Your task to perform on an android device: Empty the shopping cart on costco.com. Search for usb-c to usb-a on costco.com, select the first entry, add it to the cart, then select checkout. Image 0: 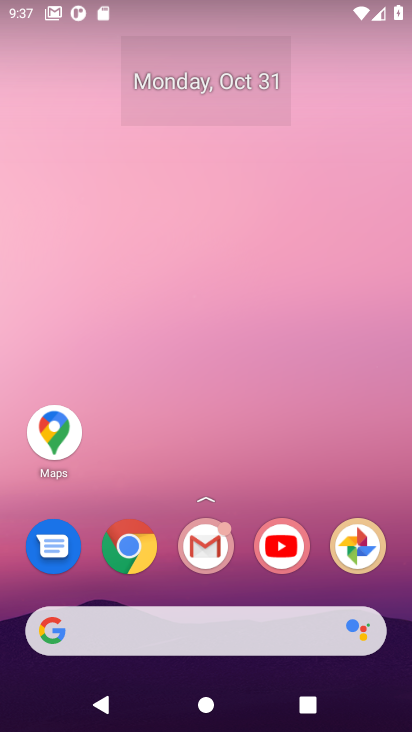
Step 0: drag from (238, 605) to (134, 155)
Your task to perform on an android device: Empty the shopping cart on costco.com. Search for usb-c to usb-a on costco.com, select the first entry, add it to the cart, then select checkout. Image 1: 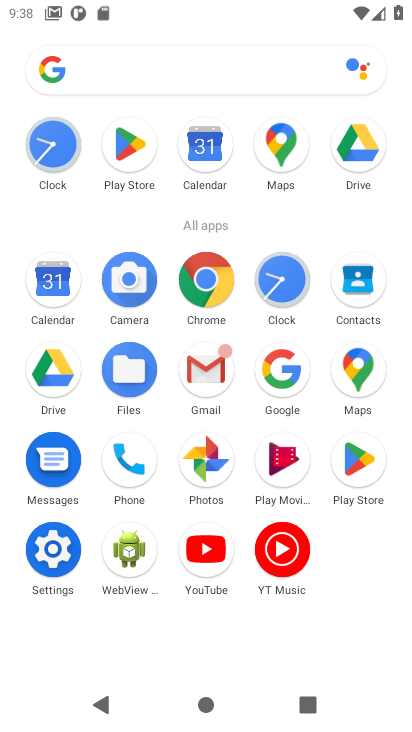
Step 1: click (213, 285)
Your task to perform on an android device: Empty the shopping cart on costco.com. Search for usb-c to usb-a on costco.com, select the first entry, add it to the cart, then select checkout. Image 2: 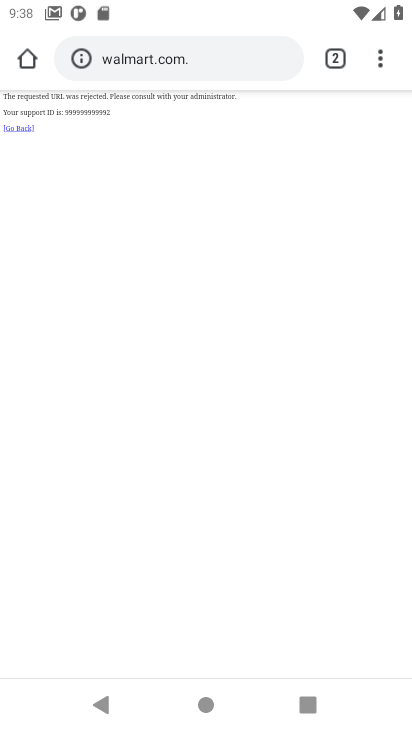
Step 2: click (201, 58)
Your task to perform on an android device: Empty the shopping cart on costco.com. Search for usb-c to usb-a on costco.com, select the first entry, add it to the cart, then select checkout. Image 3: 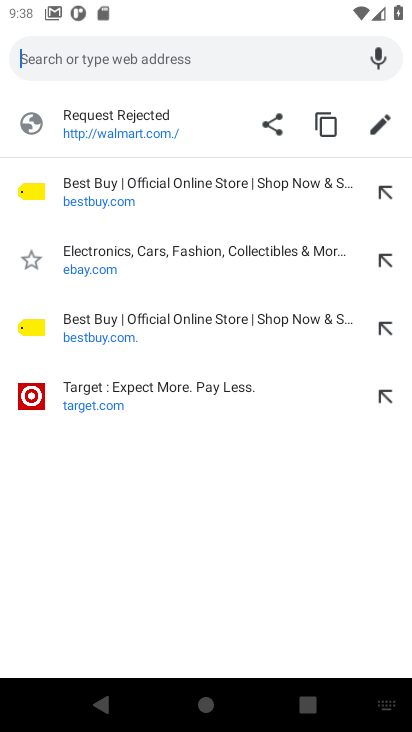
Step 3: type "costco.com."
Your task to perform on an android device: Empty the shopping cart on costco.com. Search for usb-c to usb-a on costco.com, select the first entry, add it to the cart, then select checkout. Image 4: 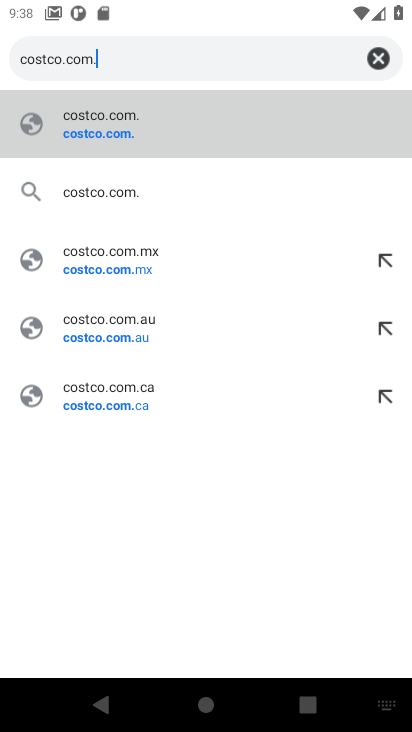
Step 4: press enter
Your task to perform on an android device: Empty the shopping cart on costco.com. Search for usb-c to usb-a on costco.com, select the first entry, add it to the cart, then select checkout. Image 5: 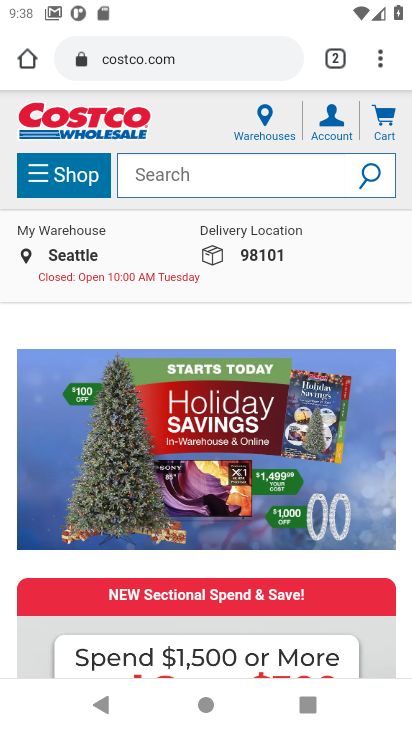
Step 5: click (178, 165)
Your task to perform on an android device: Empty the shopping cart on costco.com. Search for usb-c to usb-a on costco.com, select the first entry, add it to the cart, then select checkout. Image 6: 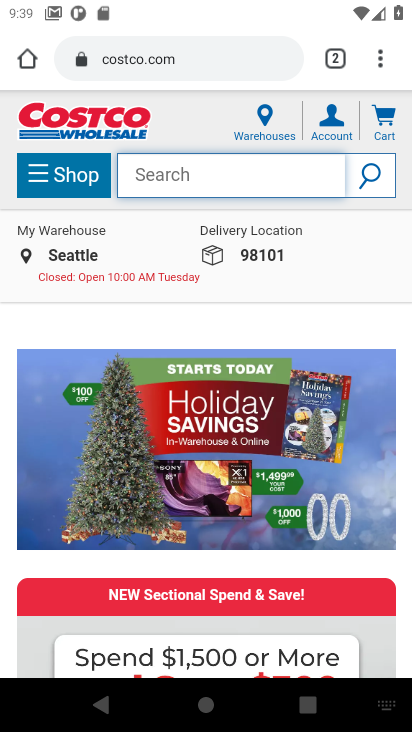
Step 6: type "usb-c to usb-a"
Your task to perform on an android device: Empty the shopping cart on costco.com. Search for usb-c to usb-a on costco.com, select the first entry, add it to the cart, then select checkout. Image 7: 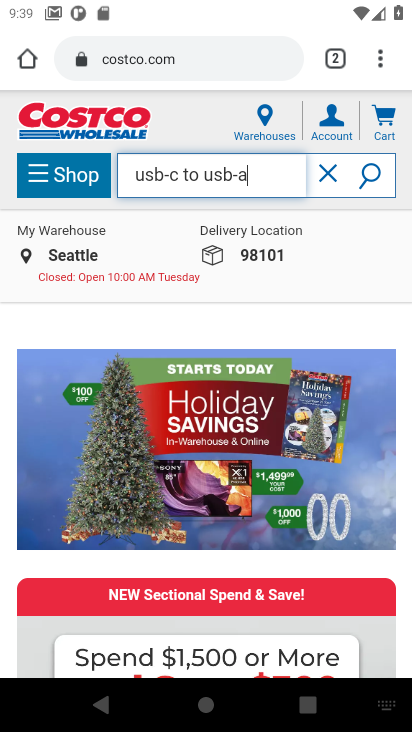
Step 7: press enter
Your task to perform on an android device: Empty the shopping cart on costco.com. Search for usb-c to usb-a on costco.com, select the first entry, add it to the cart, then select checkout. Image 8: 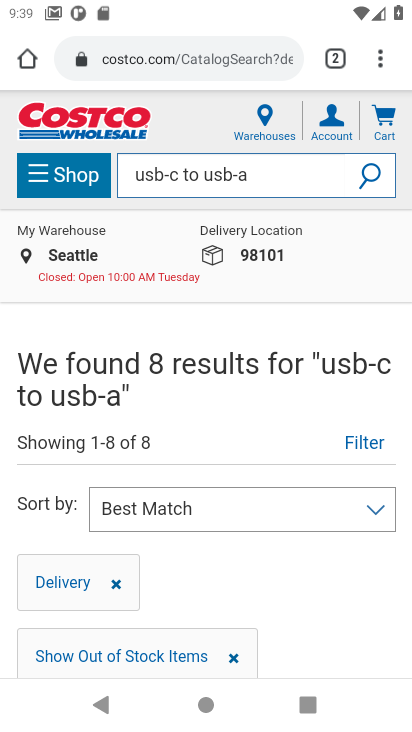
Step 8: drag from (236, 585) to (247, 275)
Your task to perform on an android device: Empty the shopping cart on costco.com. Search for usb-c to usb-a on costco.com, select the first entry, add it to the cart, then select checkout. Image 9: 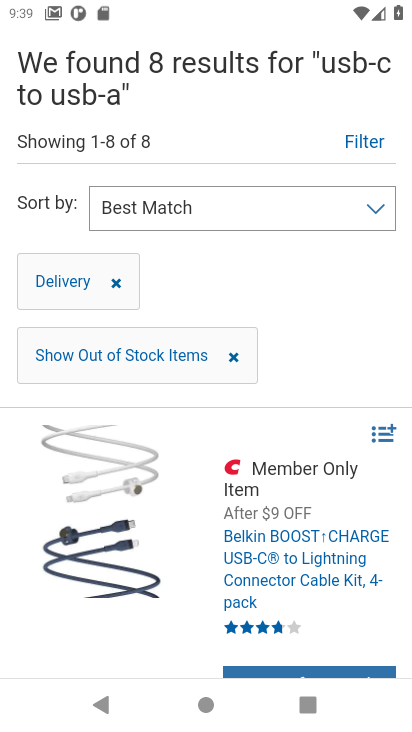
Step 9: drag from (235, 562) to (266, 249)
Your task to perform on an android device: Empty the shopping cart on costco.com. Search for usb-c to usb-a on costco.com, select the first entry, add it to the cart, then select checkout. Image 10: 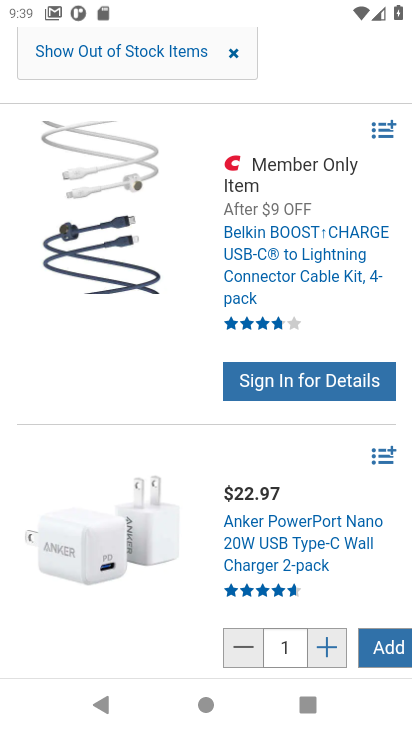
Step 10: click (388, 653)
Your task to perform on an android device: Empty the shopping cart on costco.com. Search for usb-c to usb-a on costco.com, select the first entry, add it to the cart, then select checkout. Image 11: 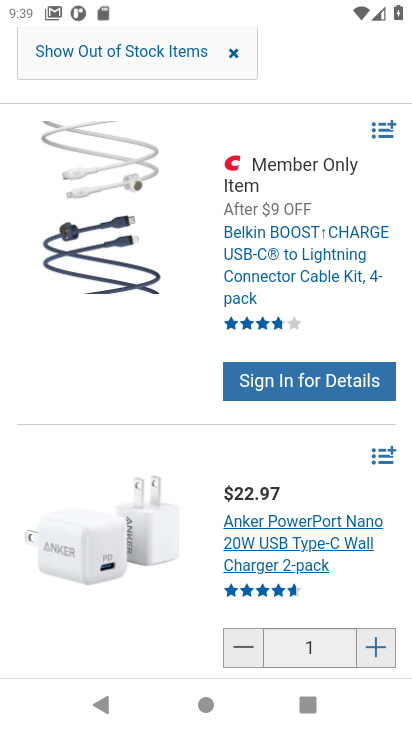
Step 11: drag from (164, 192) to (210, 561)
Your task to perform on an android device: Empty the shopping cart on costco.com. Search for usb-c to usb-a on costco.com, select the first entry, add it to the cart, then select checkout. Image 12: 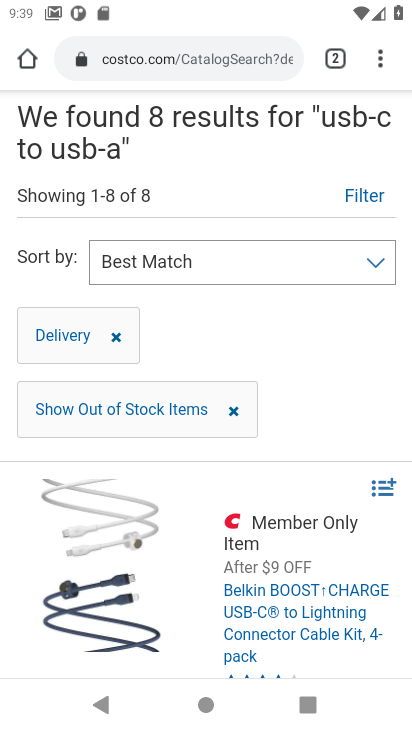
Step 12: drag from (317, 249) to (315, 542)
Your task to perform on an android device: Empty the shopping cart on costco.com. Search for usb-c to usb-a on costco.com, select the first entry, add it to the cart, then select checkout. Image 13: 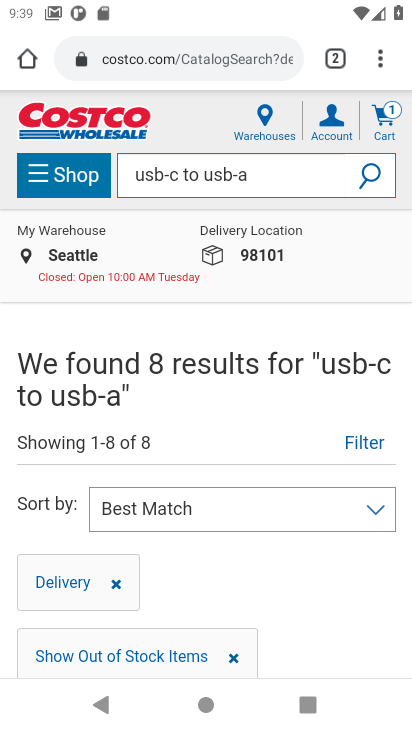
Step 13: click (395, 120)
Your task to perform on an android device: Empty the shopping cart on costco.com. Search for usb-c to usb-a on costco.com, select the first entry, add it to the cart, then select checkout. Image 14: 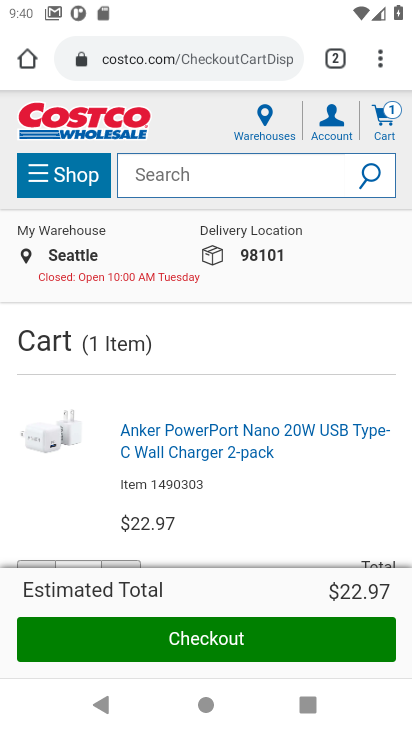
Step 14: click (203, 641)
Your task to perform on an android device: Empty the shopping cart on costco.com. Search for usb-c to usb-a on costco.com, select the first entry, add it to the cart, then select checkout. Image 15: 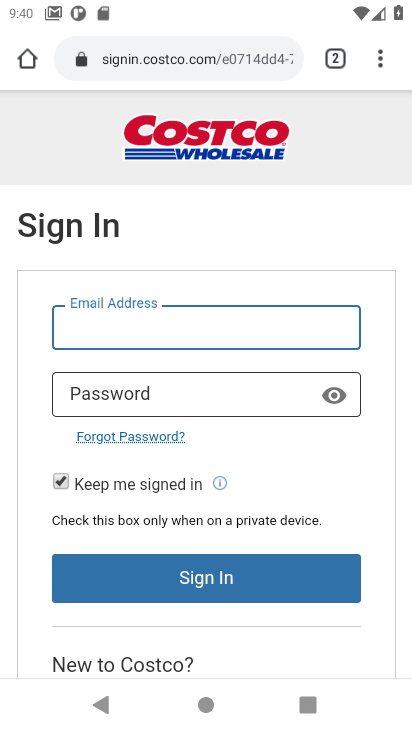
Step 15: task complete